Your task to perform on an android device: Show me popular games on the Play Store Image 0: 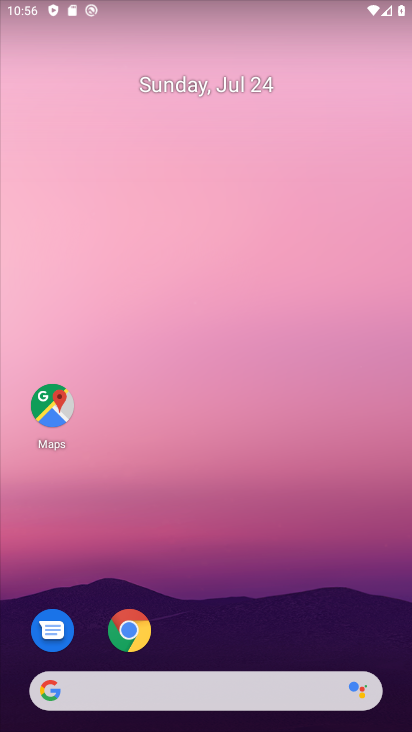
Step 0: drag from (275, 651) to (273, 22)
Your task to perform on an android device: Show me popular games on the Play Store Image 1: 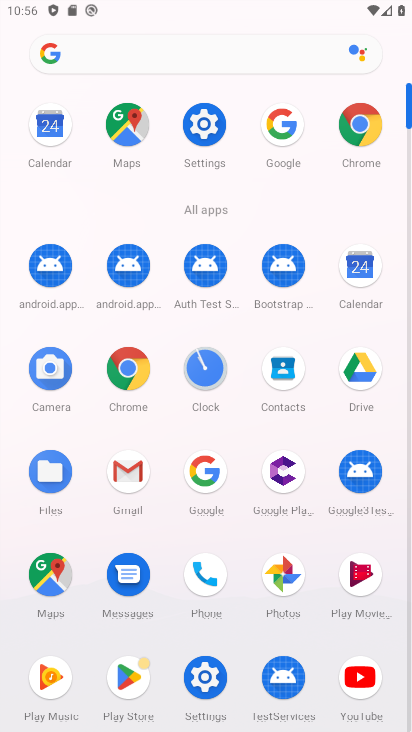
Step 1: click (115, 677)
Your task to perform on an android device: Show me popular games on the Play Store Image 2: 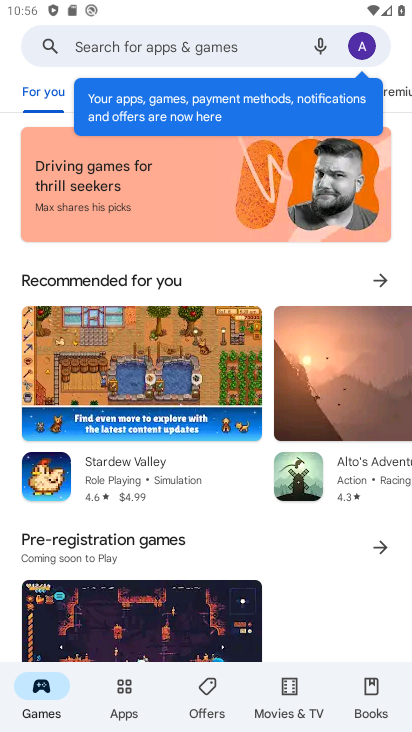
Step 2: click (52, 81)
Your task to perform on an android device: Show me popular games on the Play Store Image 3: 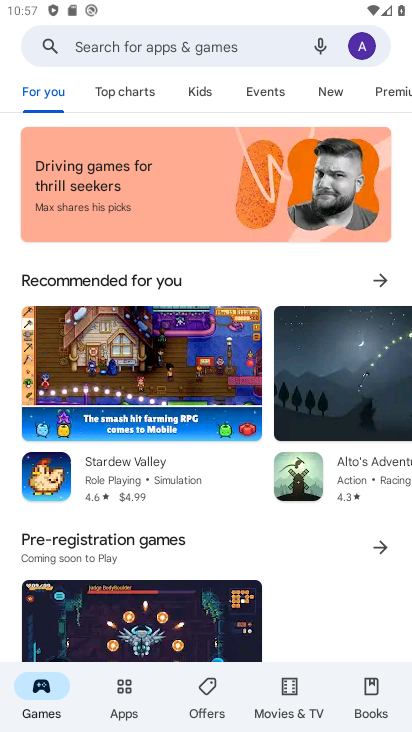
Step 3: click (125, 95)
Your task to perform on an android device: Show me popular games on the Play Store Image 4: 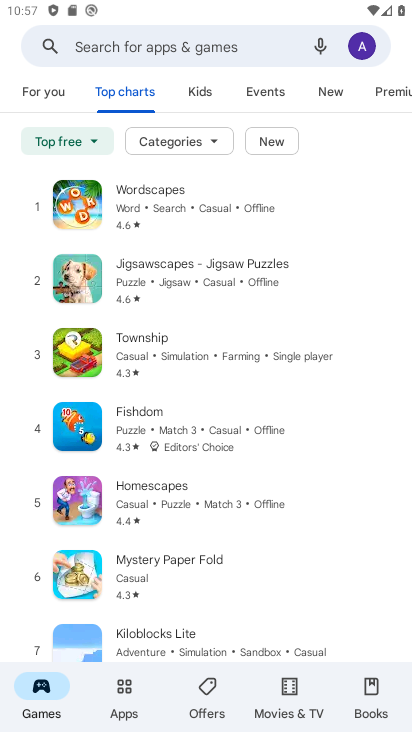
Step 4: task complete